Your task to perform on an android device: What's the news? Image 0: 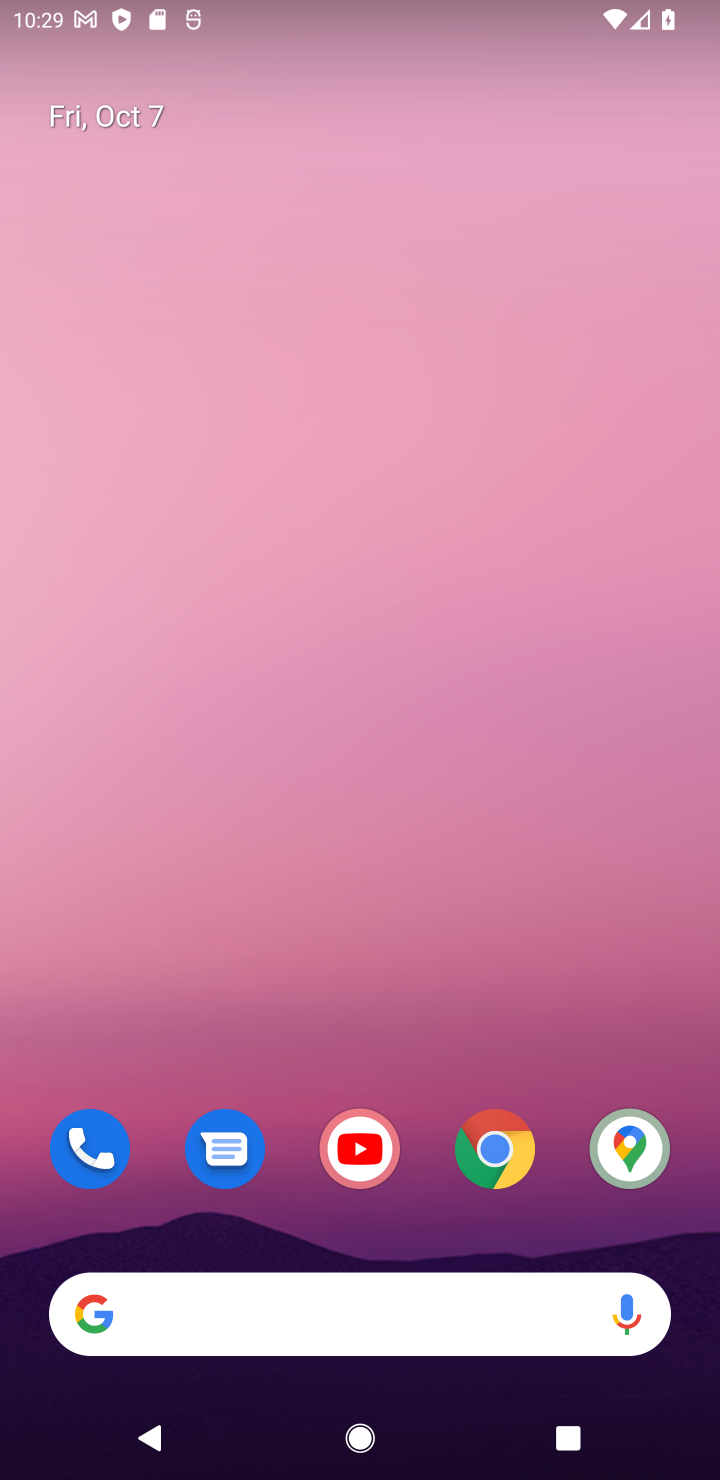
Step 0: click (322, 1277)
Your task to perform on an android device: What's the news? Image 1: 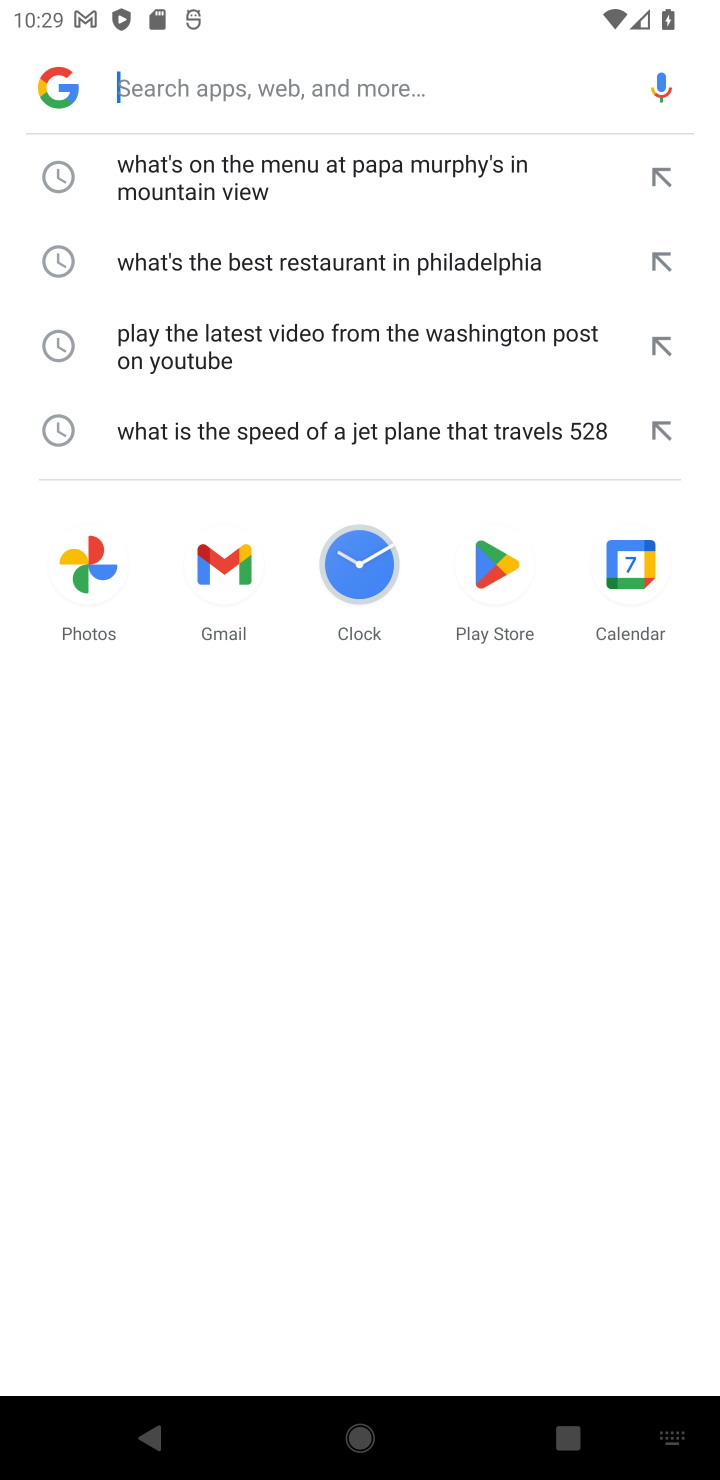
Step 1: type "What's the news?"
Your task to perform on an android device: What's the news? Image 2: 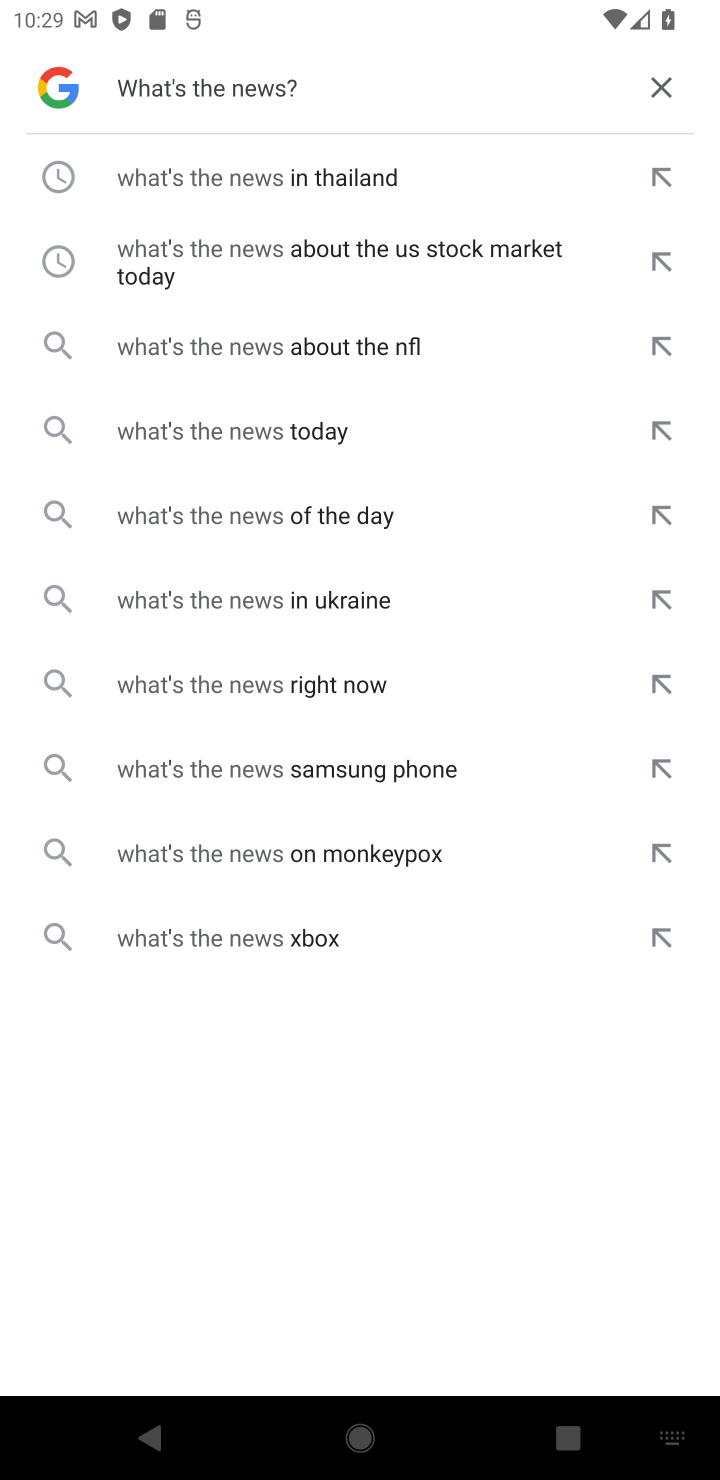
Step 2: click (448, 201)
Your task to perform on an android device: What's the news? Image 3: 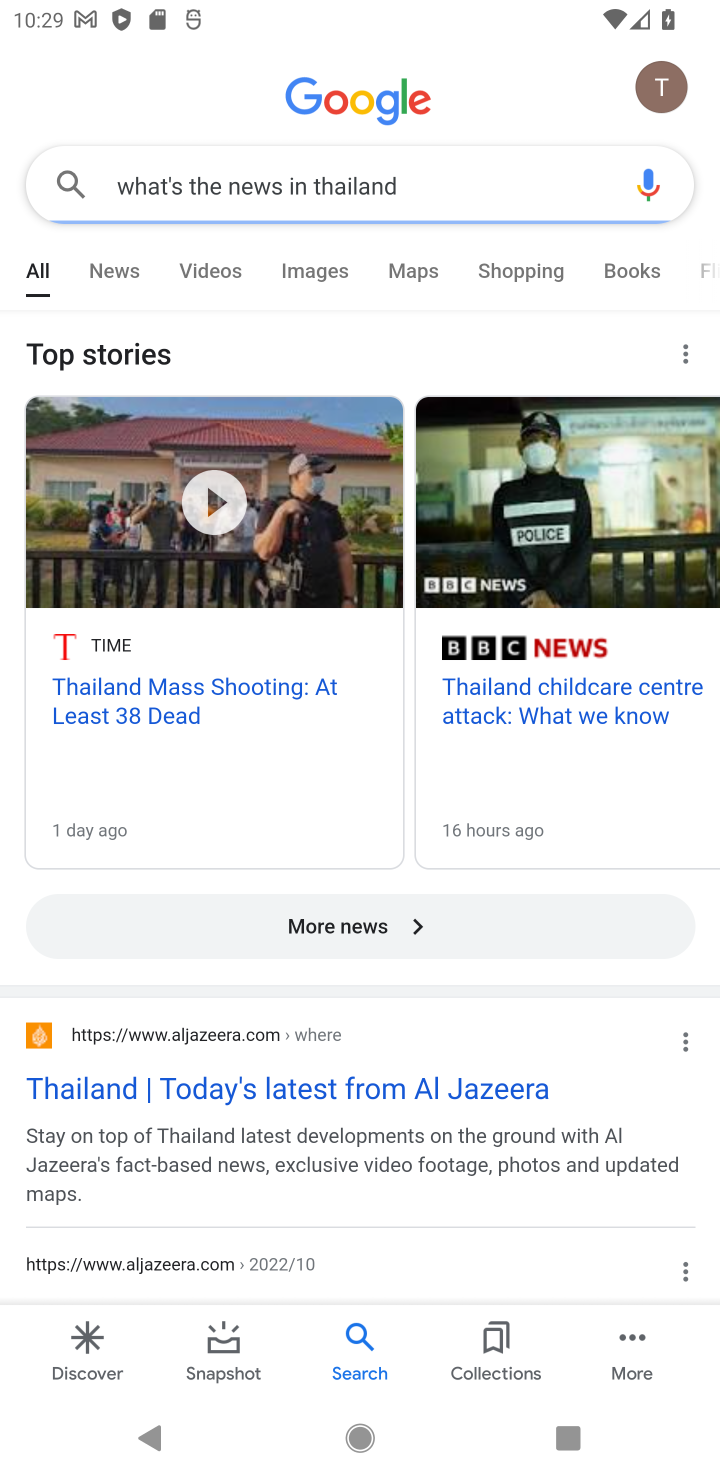
Step 3: task complete